Your task to perform on an android device: star an email in the gmail app Image 0: 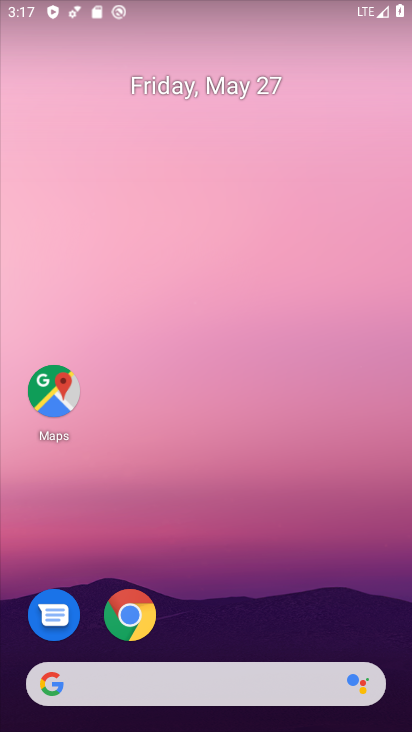
Step 0: drag from (218, 648) to (253, 42)
Your task to perform on an android device: star an email in the gmail app Image 1: 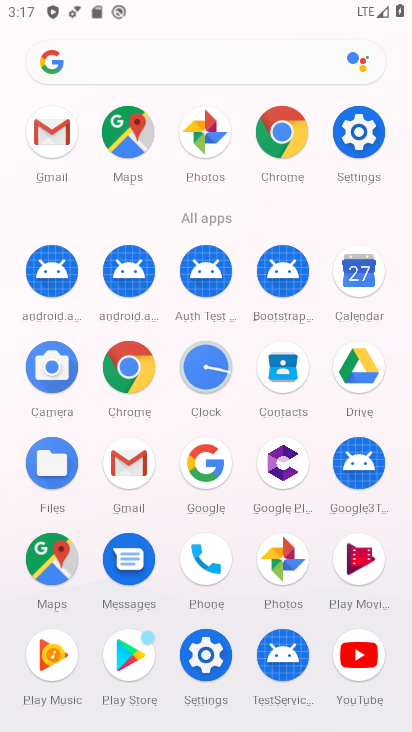
Step 1: click (44, 135)
Your task to perform on an android device: star an email in the gmail app Image 2: 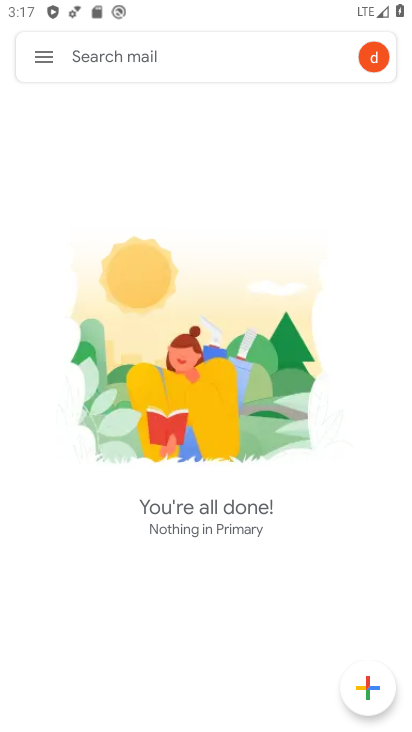
Step 2: task complete